Your task to perform on an android device: Open Google Chrome and open the bookmarks view Image 0: 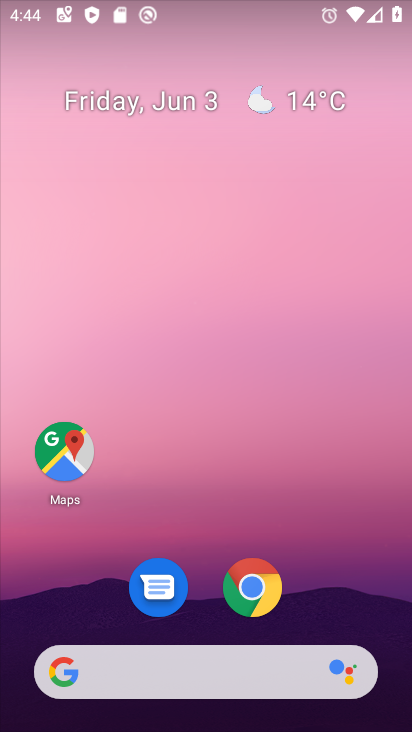
Step 0: click (238, 594)
Your task to perform on an android device: Open Google Chrome and open the bookmarks view Image 1: 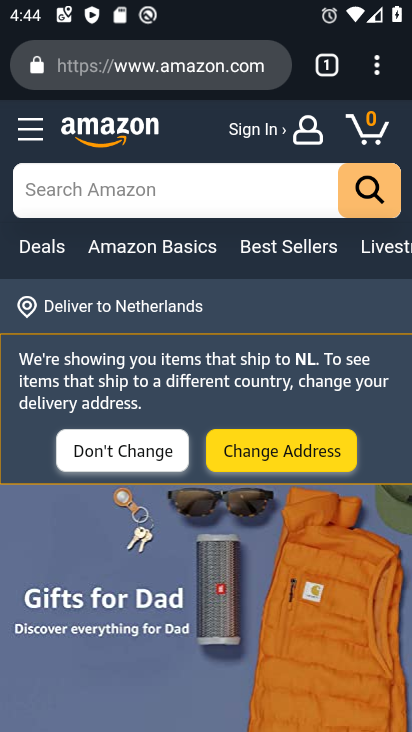
Step 1: click (390, 58)
Your task to perform on an android device: Open Google Chrome and open the bookmarks view Image 2: 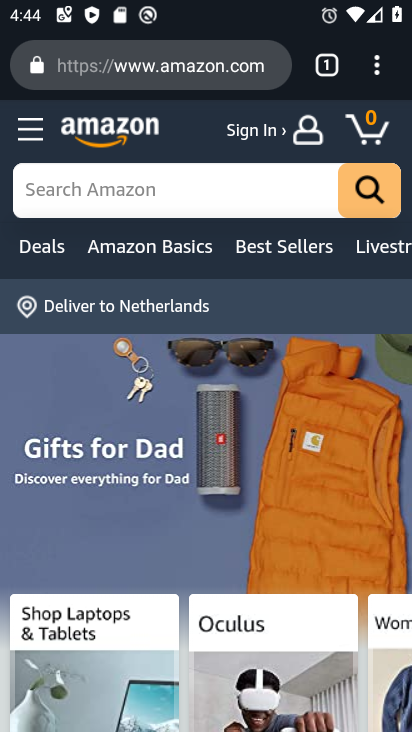
Step 2: click (373, 65)
Your task to perform on an android device: Open Google Chrome and open the bookmarks view Image 3: 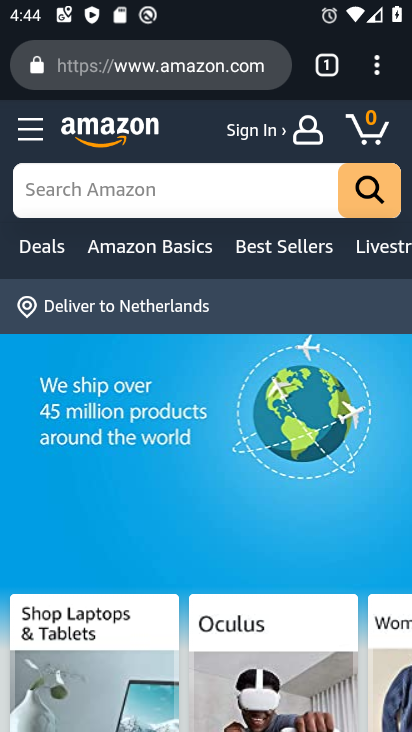
Step 3: click (383, 62)
Your task to perform on an android device: Open Google Chrome and open the bookmarks view Image 4: 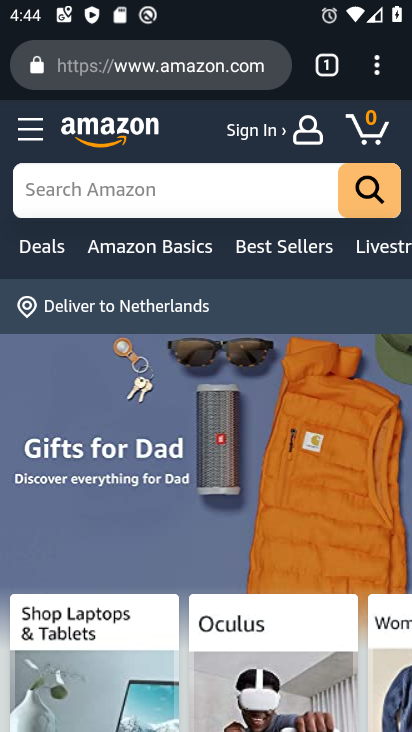
Step 4: click (373, 74)
Your task to perform on an android device: Open Google Chrome and open the bookmarks view Image 5: 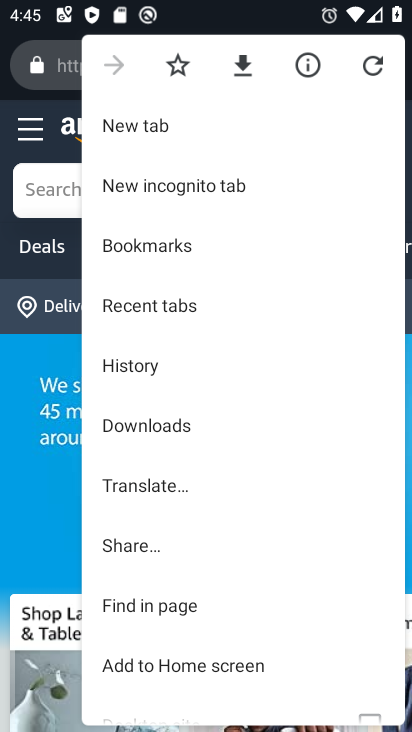
Step 5: click (154, 240)
Your task to perform on an android device: Open Google Chrome and open the bookmarks view Image 6: 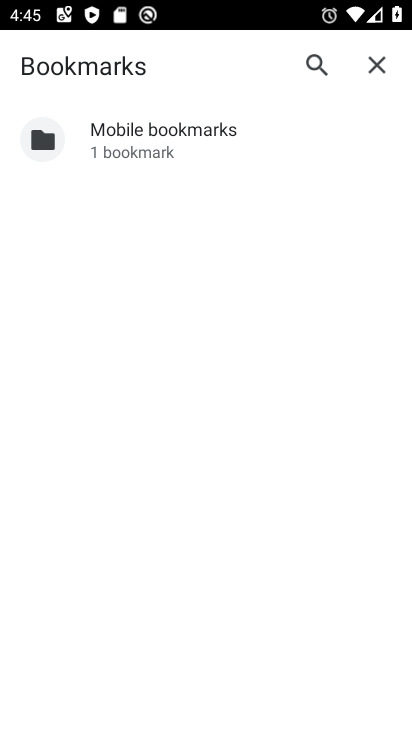
Step 6: task complete